Your task to perform on an android device: empty trash in google photos Image 0: 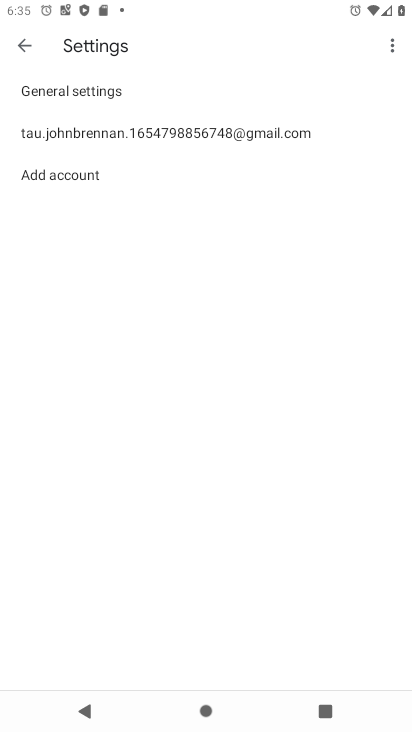
Step 0: task complete